Your task to perform on an android device: open device folders in google photos Image 0: 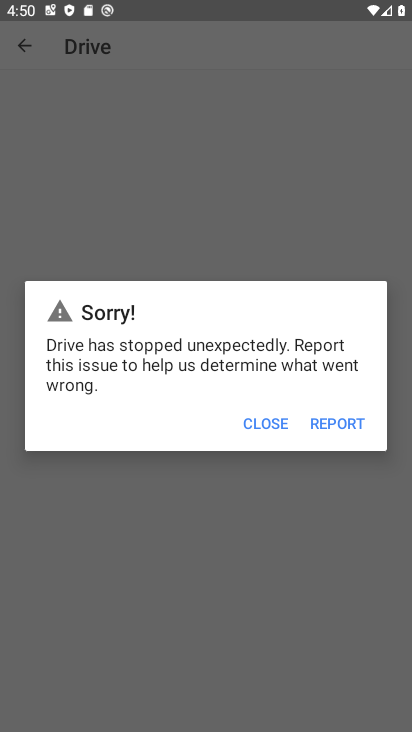
Step 0: press home button
Your task to perform on an android device: open device folders in google photos Image 1: 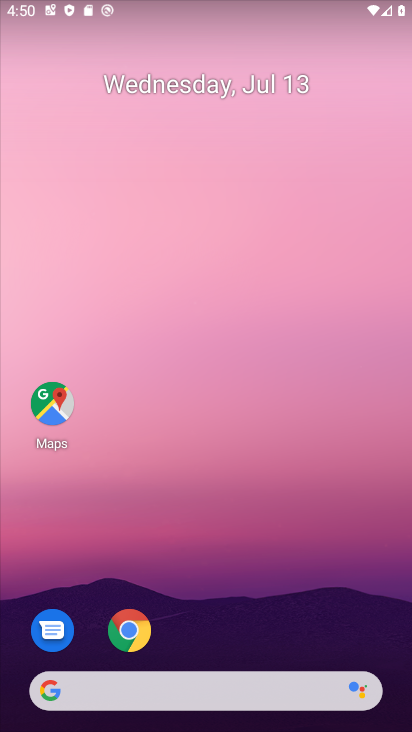
Step 1: drag from (230, 648) to (320, 184)
Your task to perform on an android device: open device folders in google photos Image 2: 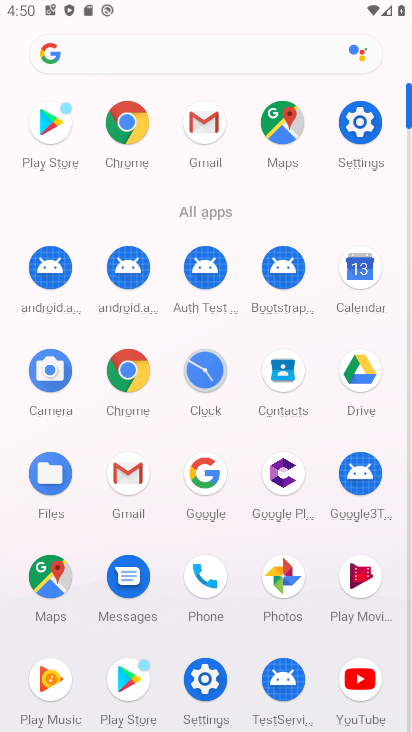
Step 2: click (273, 576)
Your task to perform on an android device: open device folders in google photos Image 3: 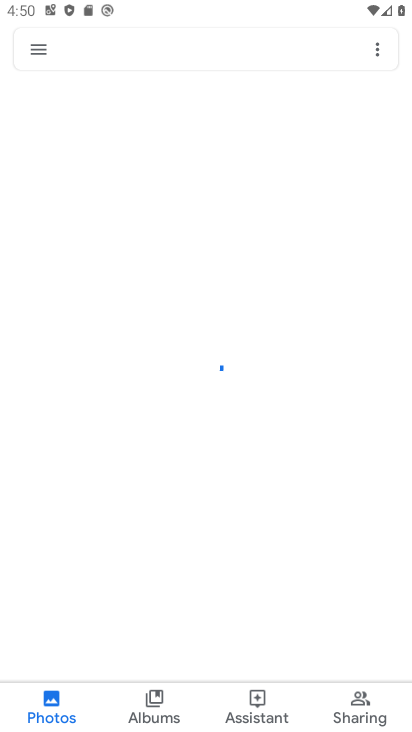
Step 3: click (43, 60)
Your task to perform on an android device: open device folders in google photos Image 4: 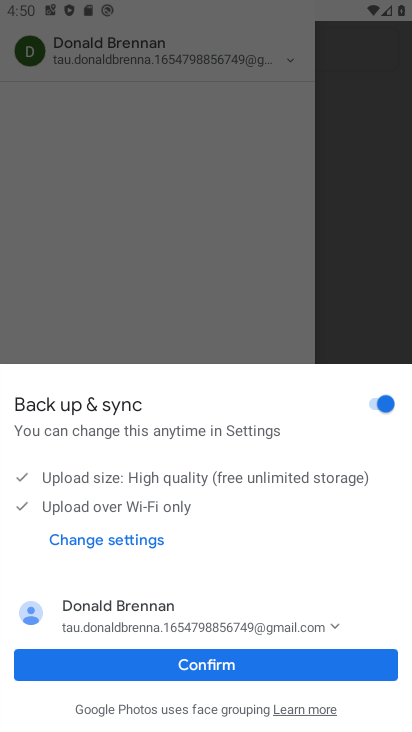
Step 4: click (298, 666)
Your task to perform on an android device: open device folders in google photos Image 5: 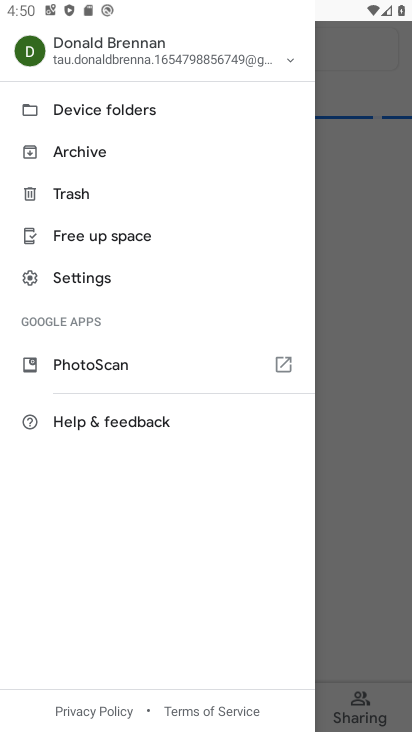
Step 5: click (196, 120)
Your task to perform on an android device: open device folders in google photos Image 6: 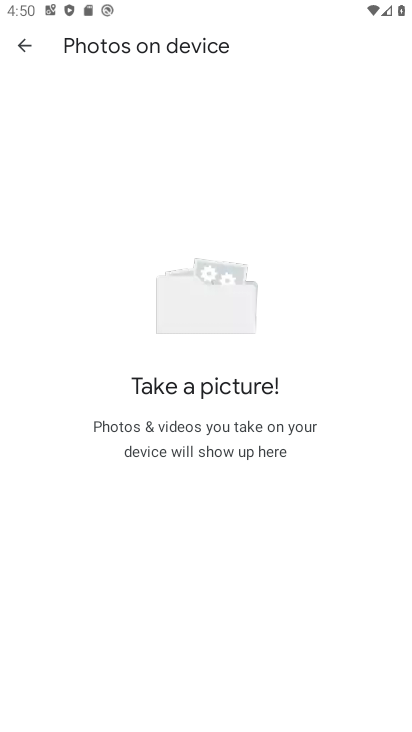
Step 6: task complete